Your task to perform on an android device: Open Youtube and go to the subscriptions tab Image 0: 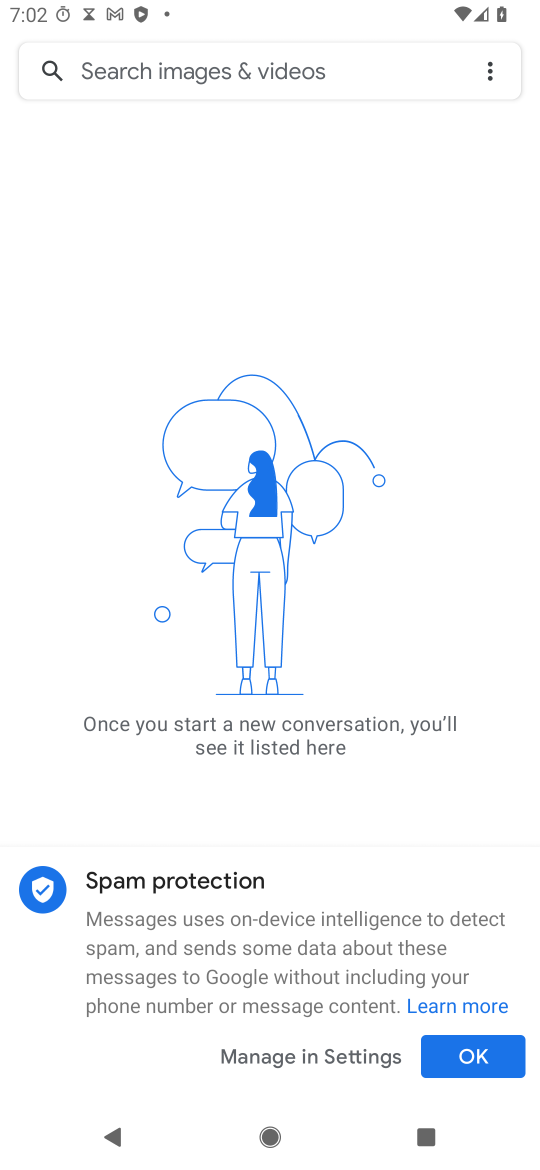
Step 0: press home button
Your task to perform on an android device: Open Youtube and go to the subscriptions tab Image 1: 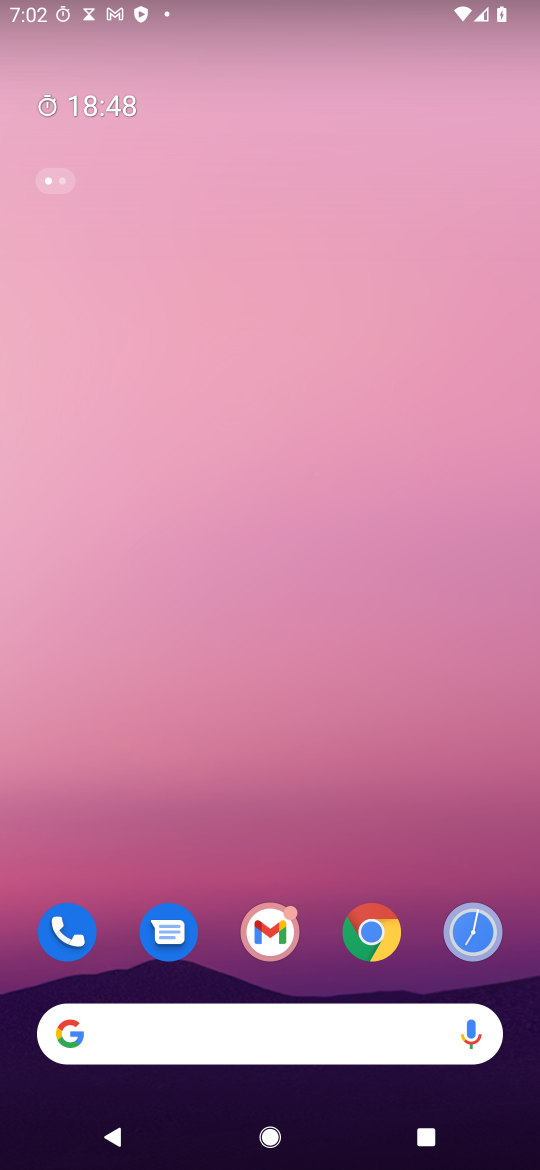
Step 1: drag from (272, 782) to (279, 42)
Your task to perform on an android device: Open Youtube and go to the subscriptions tab Image 2: 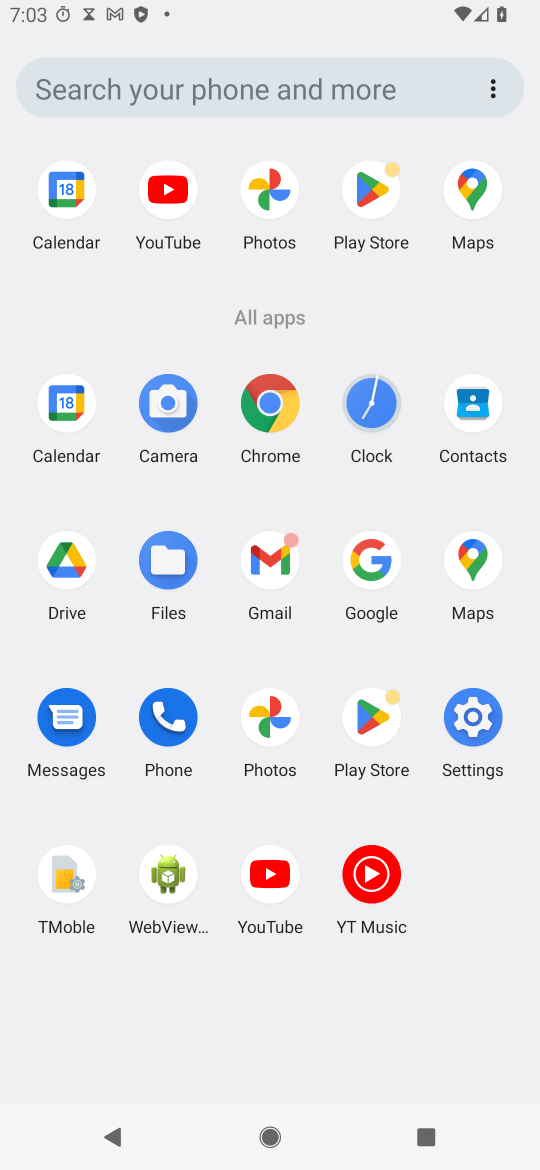
Step 2: click (250, 867)
Your task to perform on an android device: Open Youtube and go to the subscriptions tab Image 3: 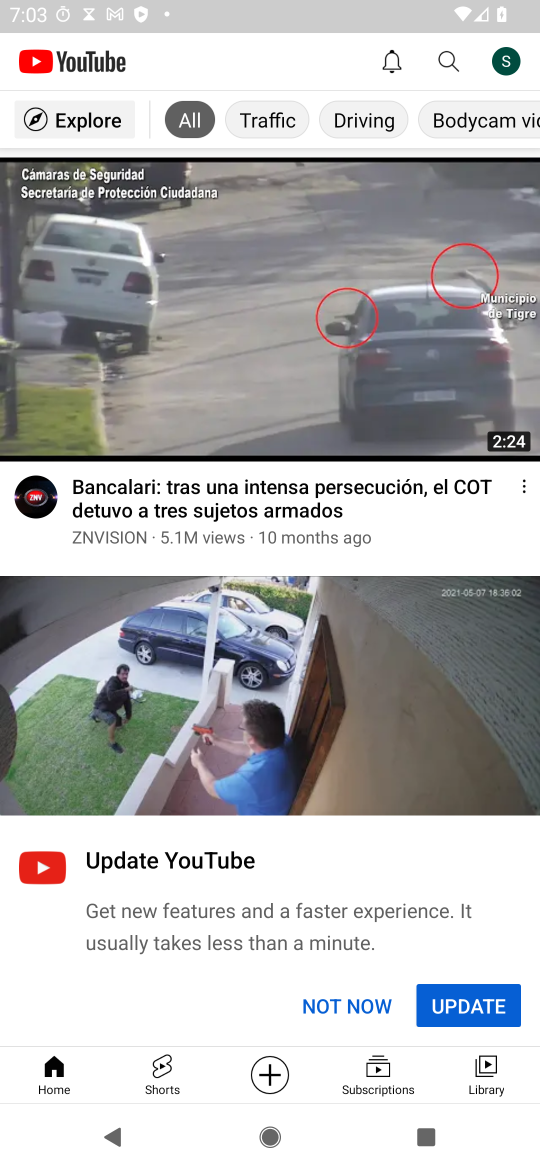
Step 3: click (389, 1075)
Your task to perform on an android device: Open Youtube and go to the subscriptions tab Image 4: 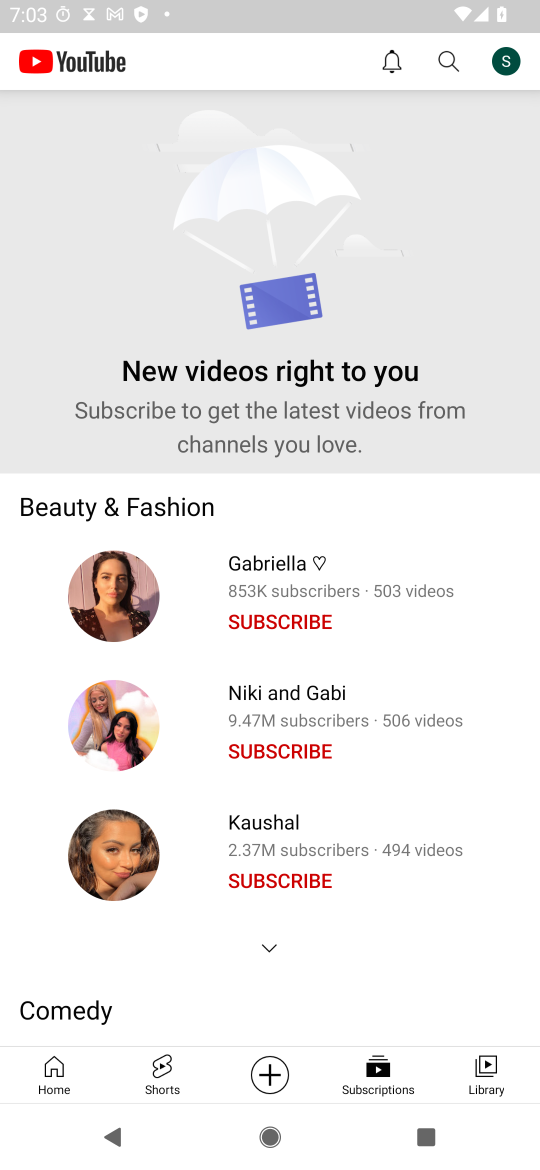
Step 4: task complete